Your task to perform on an android device: Show me popular games on the Play Store Image 0: 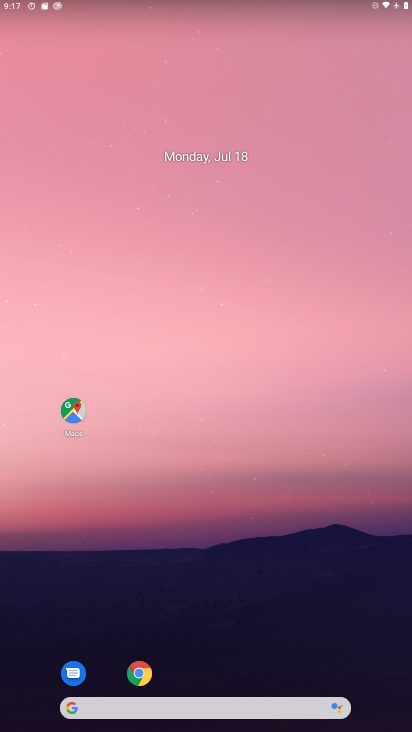
Step 0: press home button
Your task to perform on an android device: Show me popular games on the Play Store Image 1: 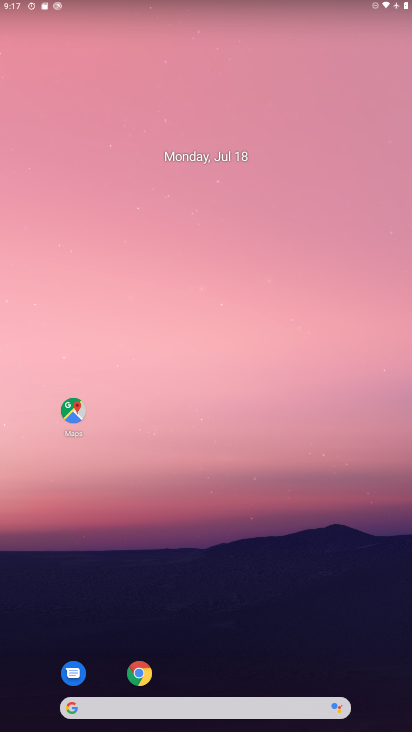
Step 1: drag from (214, 654) to (205, 109)
Your task to perform on an android device: Show me popular games on the Play Store Image 2: 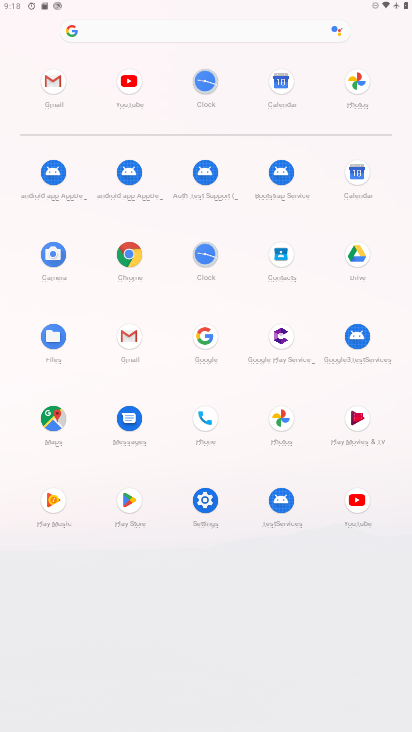
Step 2: click (128, 499)
Your task to perform on an android device: Show me popular games on the Play Store Image 3: 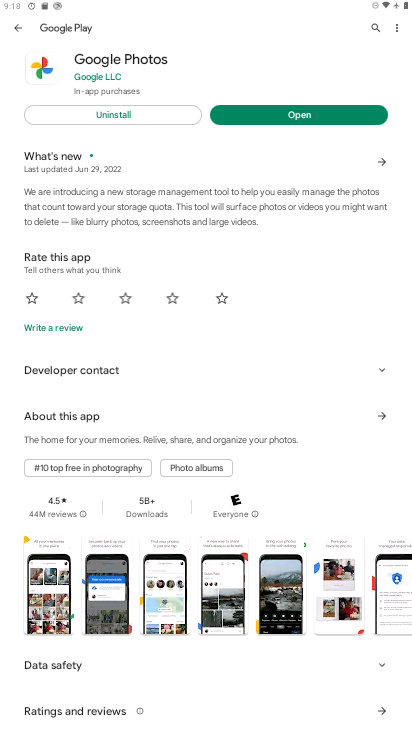
Step 3: press back button
Your task to perform on an android device: Show me popular games on the Play Store Image 4: 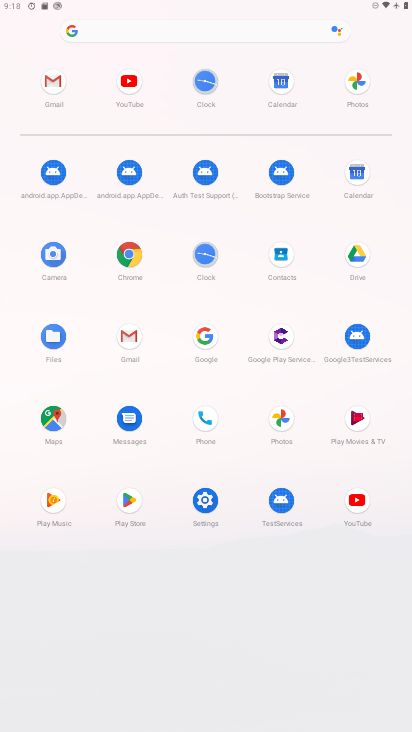
Step 4: click (127, 510)
Your task to perform on an android device: Show me popular games on the Play Store Image 5: 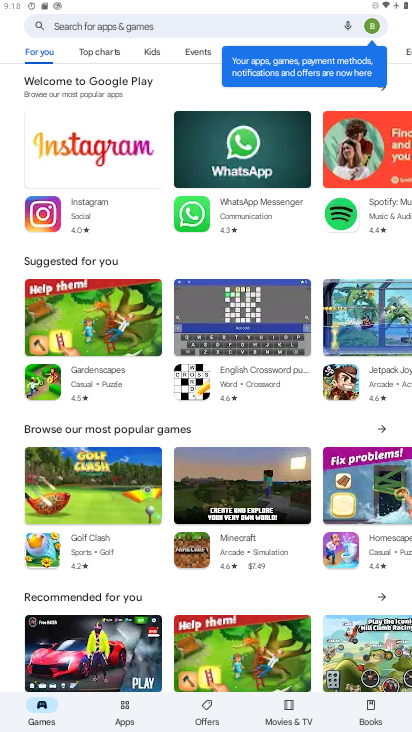
Step 5: click (30, 698)
Your task to perform on an android device: Show me popular games on the Play Store Image 6: 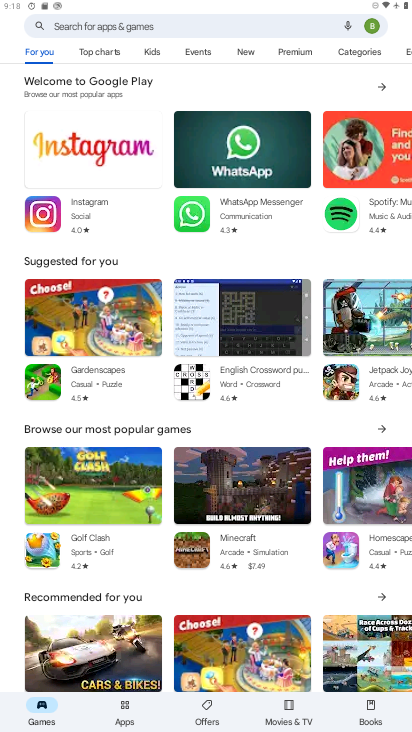
Step 6: click (363, 47)
Your task to perform on an android device: Show me popular games on the Play Store Image 7: 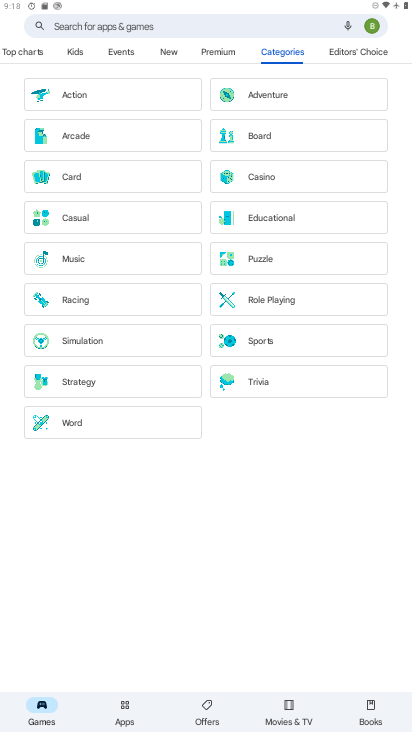
Step 7: task complete